Your task to perform on an android device: turn on airplane mode Image 0: 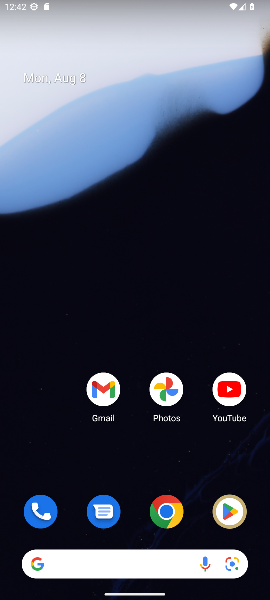
Step 0: drag from (55, 466) to (148, 161)
Your task to perform on an android device: turn on airplane mode Image 1: 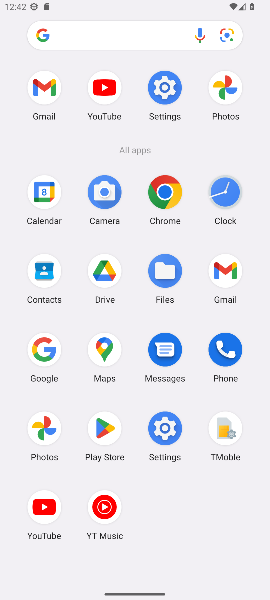
Step 1: click (167, 426)
Your task to perform on an android device: turn on airplane mode Image 2: 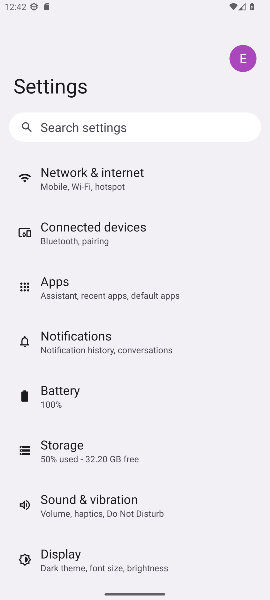
Step 2: click (191, 185)
Your task to perform on an android device: turn on airplane mode Image 3: 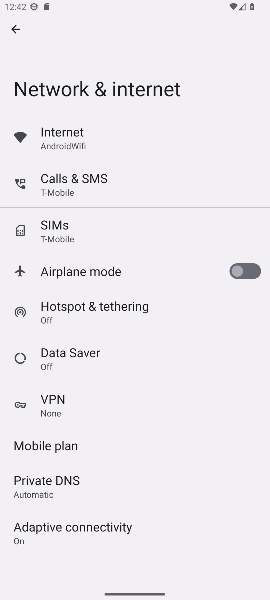
Step 3: click (239, 271)
Your task to perform on an android device: turn on airplane mode Image 4: 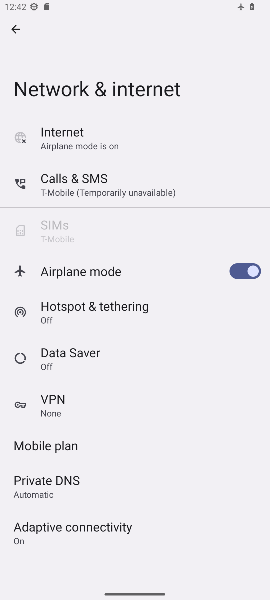
Step 4: task complete